Your task to perform on an android device: Go to eBay Image 0: 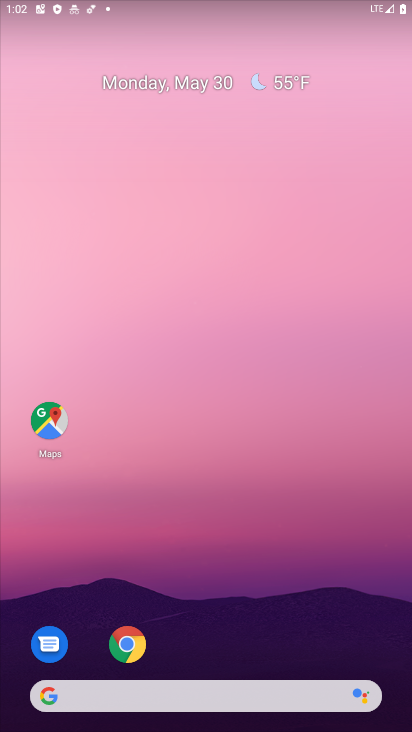
Step 0: click (250, 707)
Your task to perform on an android device: Go to eBay Image 1: 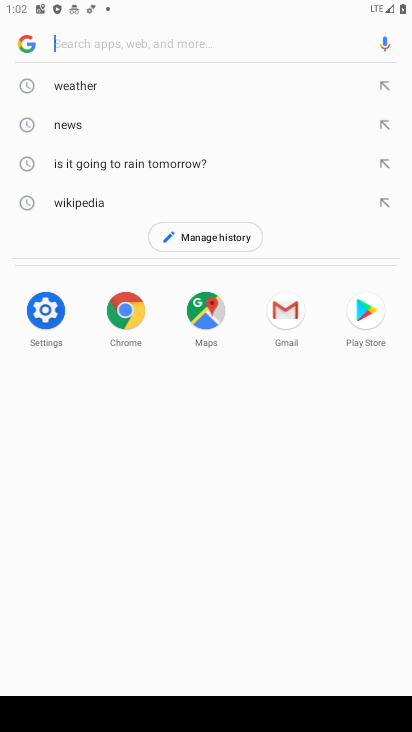
Step 1: type "ebay.com"
Your task to perform on an android device: Go to eBay Image 2: 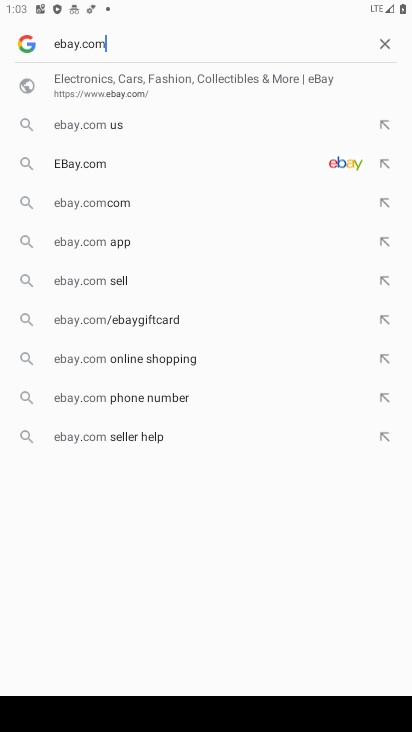
Step 2: click (135, 74)
Your task to perform on an android device: Go to eBay Image 3: 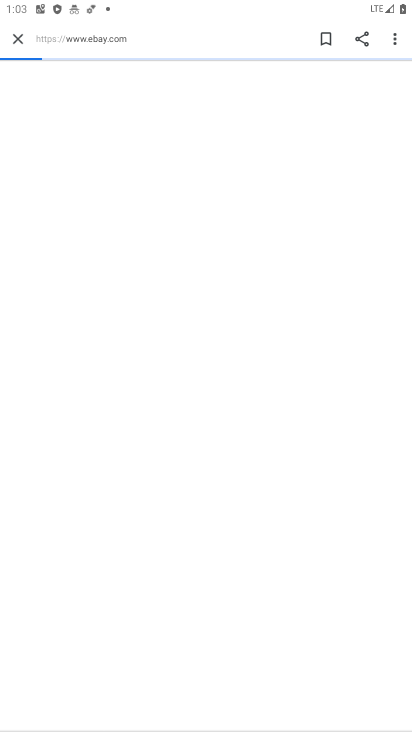
Step 3: task complete